Your task to perform on an android device: show emergency info Image 0: 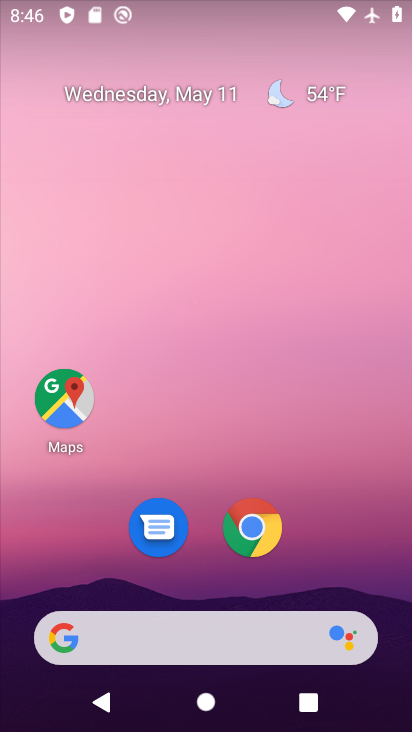
Step 0: drag from (362, 538) to (362, 206)
Your task to perform on an android device: show emergency info Image 1: 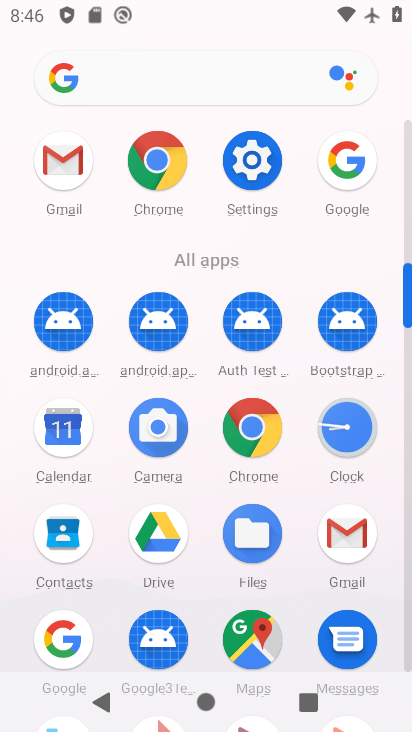
Step 1: click (267, 173)
Your task to perform on an android device: show emergency info Image 2: 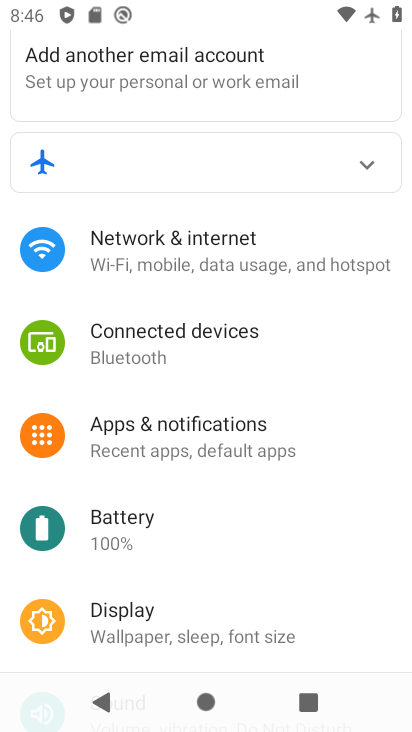
Step 2: drag from (228, 192) to (242, 541)
Your task to perform on an android device: show emergency info Image 3: 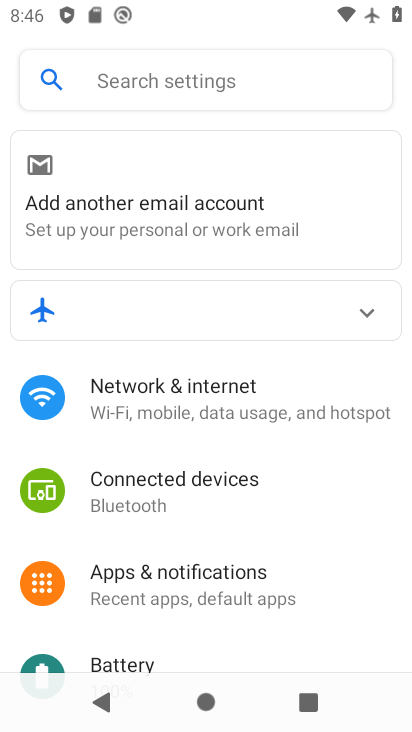
Step 3: click (180, 89)
Your task to perform on an android device: show emergency info Image 4: 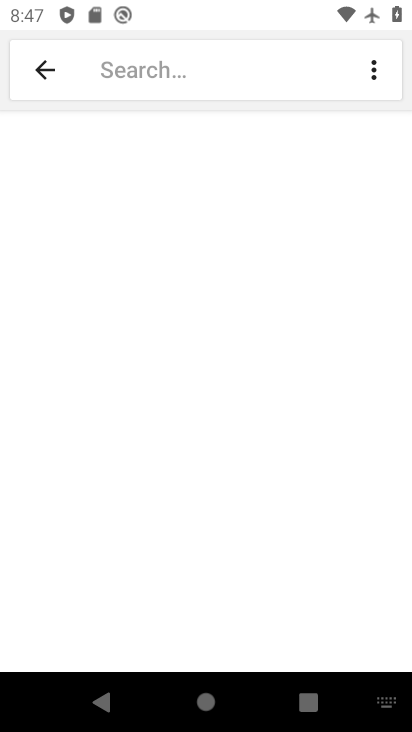
Step 4: type "emergency info"
Your task to perform on an android device: show emergency info Image 5: 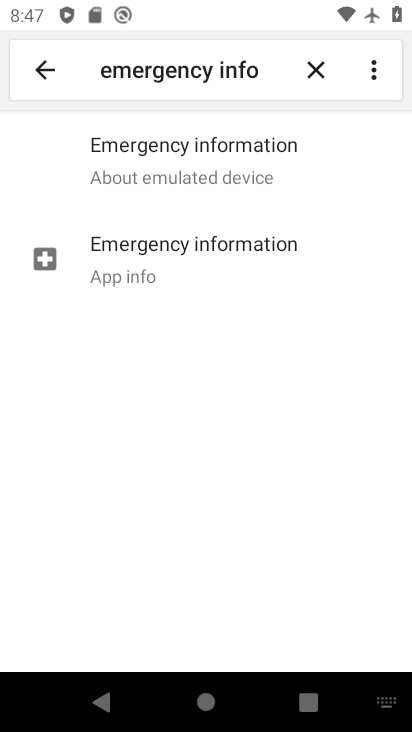
Step 5: click (202, 272)
Your task to perform on an android device: show emergency info Image 6: 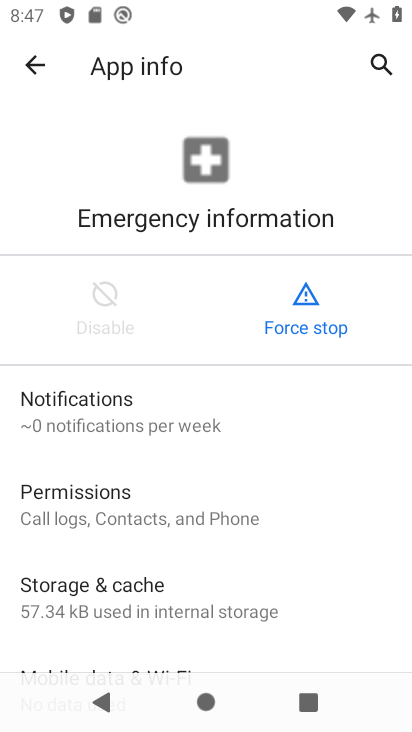
Step 6: task complete